Your task to perform on an android device: Search for razer blade on ebay, select the first entry, and add it to the cart. Image 0: 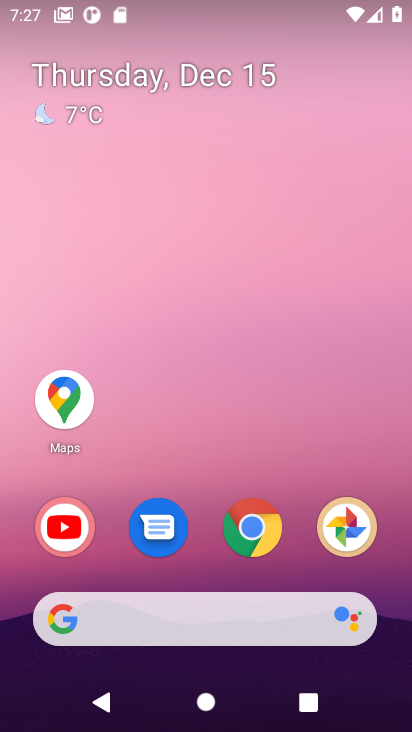
Step 0: click (238, 536)
Your task to perform on an android device: Search for razer blade on ebay, select the first entry, and add it to the cart. Image 1: 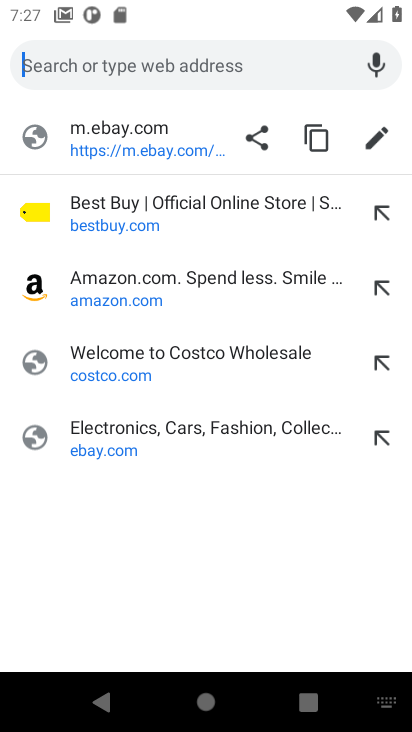
Step 1: click (141, 136)
Your task to perform on an android device: Search for razer blade on ebay, select the first entry, and add it to the cart. Image 2: 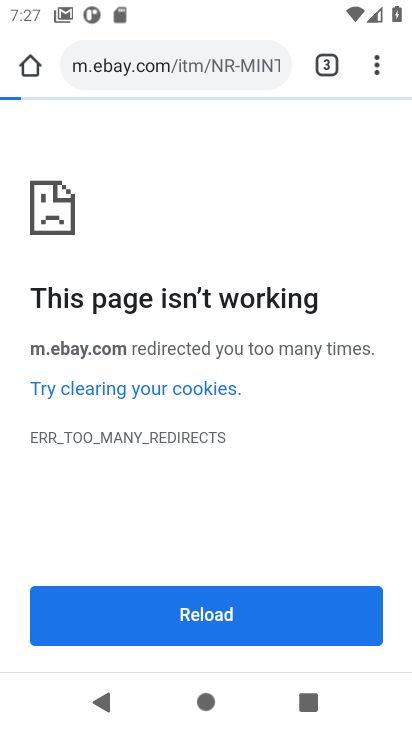
Step 2: task complete